Your task to perform on an android device: change timer sound Image 0: 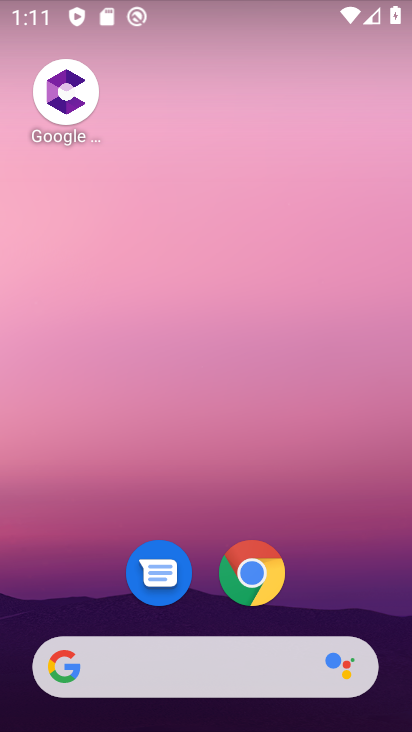
Step 0: press home button
Your task to perform on an android device: change timer sound Image 1: 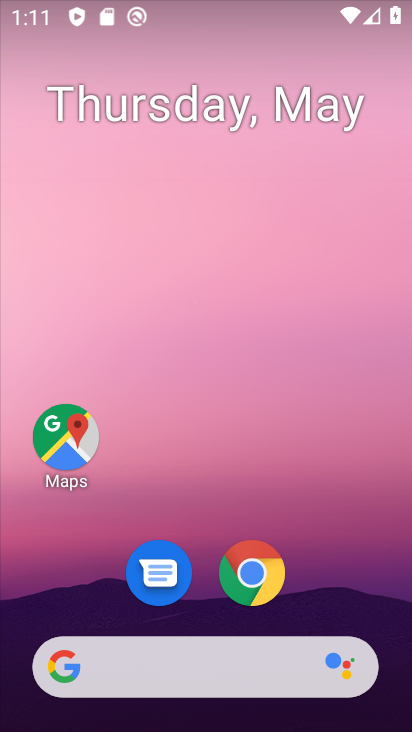
Step 1: drag from (370, 553) to (338, 258)
Your task to perform on an android device: change timer sound Image 2: 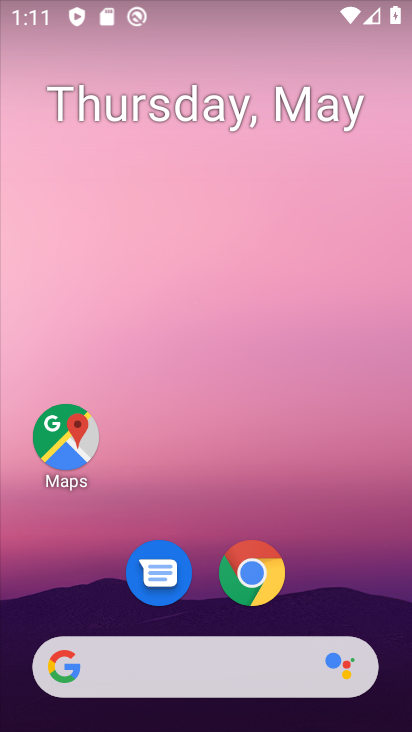
Step 2: drag from (403, 689) to (320, 89)
Your task to perform on an android device: change timer sound Image 3: 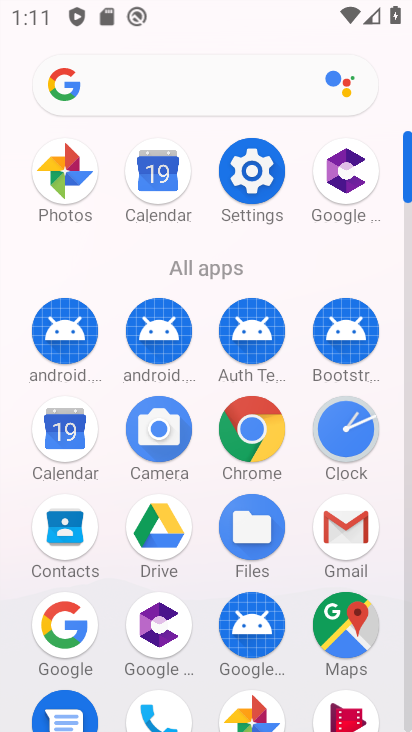
Step 3: click (337, 444)
Your task to perform on an android device: change timer sound Image 4: 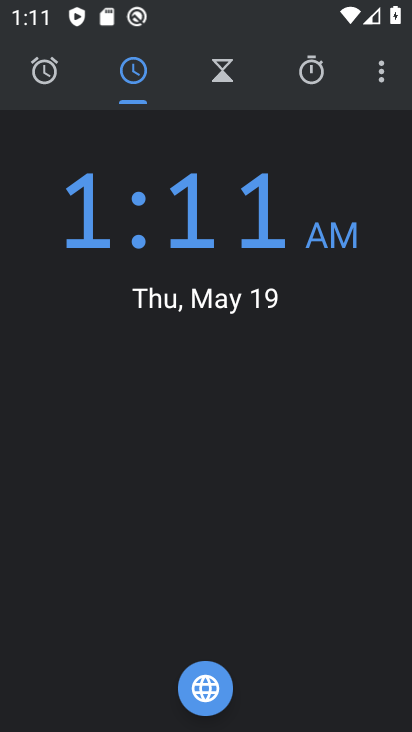
Step 4: click (383, 72)
Your task to perform on an android device: change timer sound Image 5: 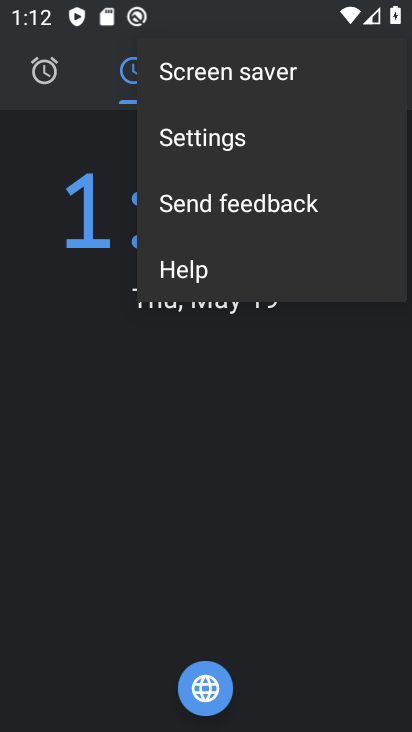
Step 5: click (183, 141)
Your task to perform on an android device: change timer sound Image 6: 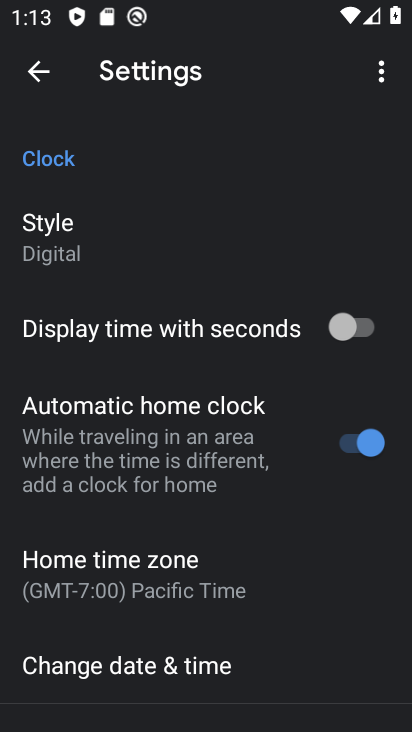
Step 6: drag from (215, 633) to (235, 257)
Your task to perform on an android device: change timer sound Image 7: 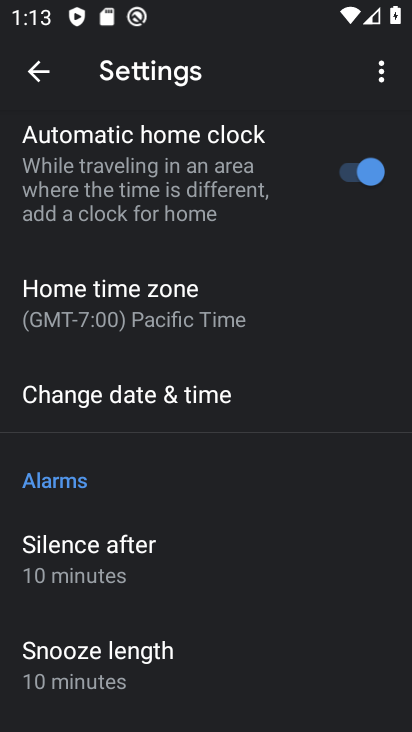
Step 7: drag from (248, 667) to (280, 279)
Your task to perform on an android device: change timer sound Image 8: 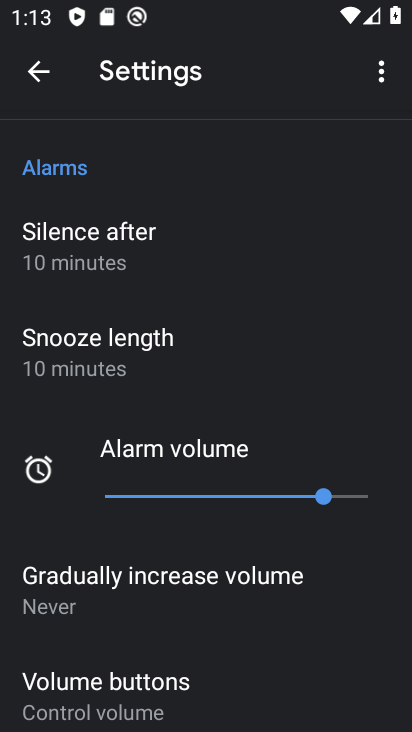
Step 8: drag from (256, 681) to (260, 353)
Your task to perform on an android device: change timer sound Image 9: 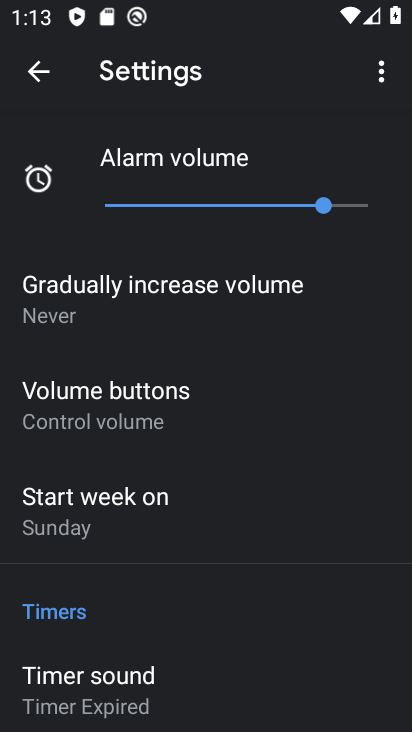
Step 9: drag from (194, 667) to (218, 388)
Your task to perform on an android device: change timer sound Image 10: 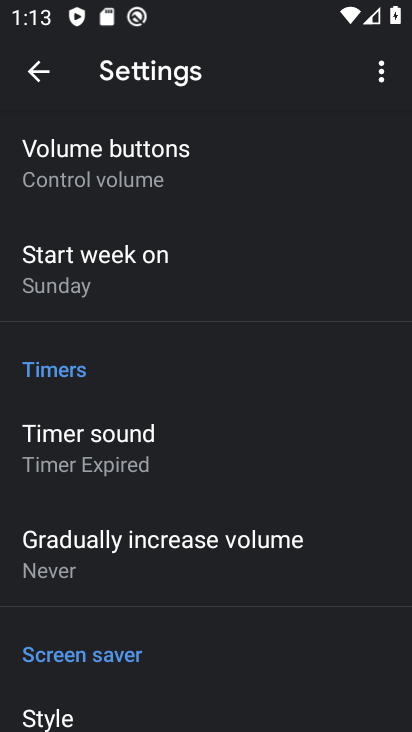
Step 10: click (83, 453)
Your task to perform on an android device: change timer sound Image 11: 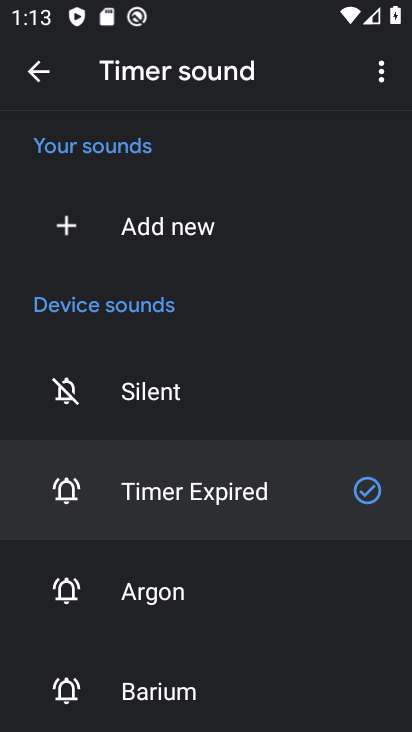
Step 11: click (68, 588)
Your task to perform on an android device: change timer sound Image 12: 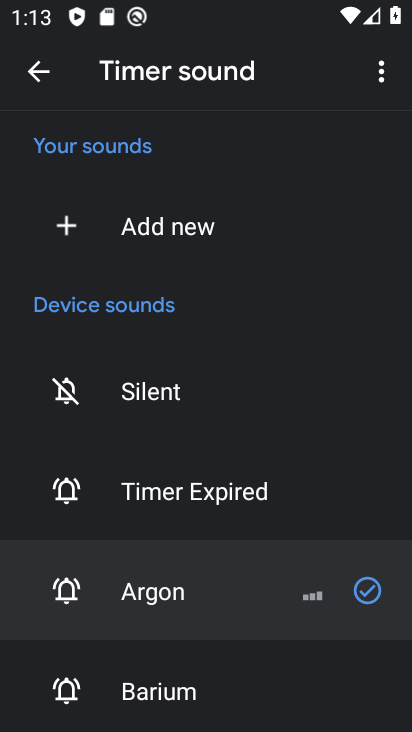
Step 12: task complete